Your task to perform on an android device: Open notification settings Image 0: 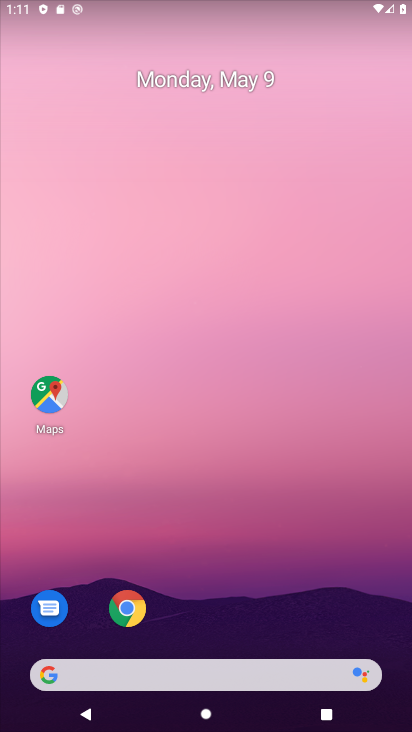
Step 0: drag from (243, 623) to (322, 48)
Your task to perform on an android device: Open notification settings Image 1: 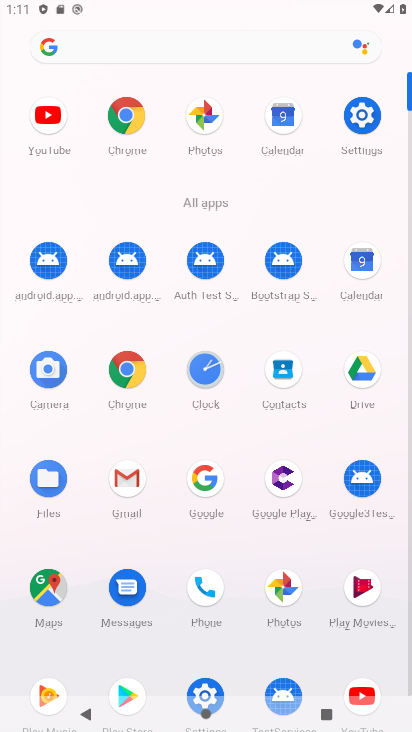
Step 1: click (359, 117)
Your task to perform on an android device: Open notification settings Image 2: 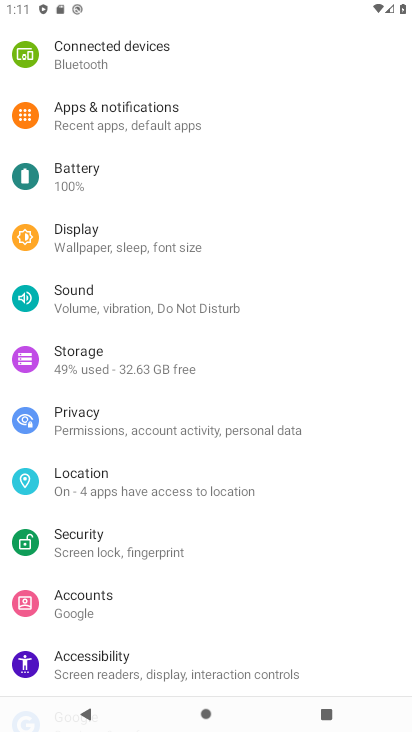
Step 2: click (146, 128)
Your task to perform on an android device: Open notification settings Image 3: 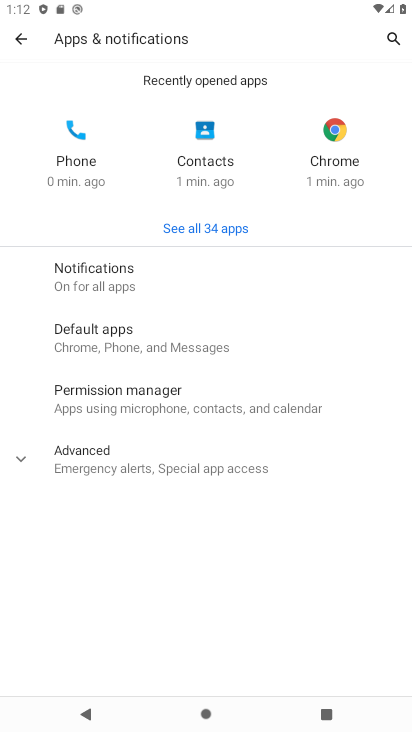
Step 3: click (149, 273)
Your task to perform on an android device: Open notification settings Image 4: 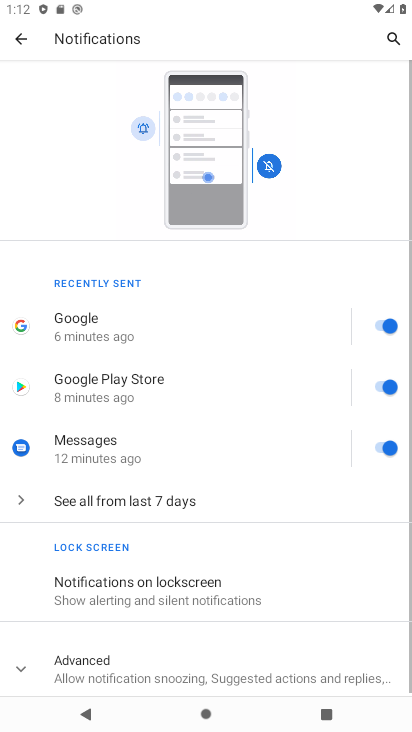
Step 4: task complete